Your task to perform on an android device: Open accessibility settings Image 0: 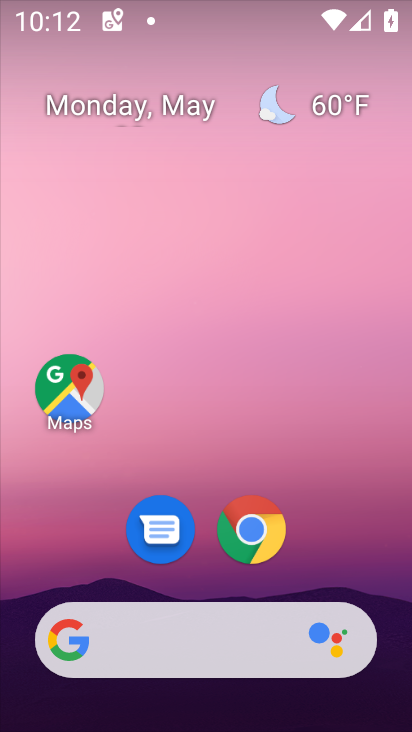
Step 0: drag from (251, 457) to (249, 133)
Your task to perform on an android device: Open accessibility settings Image 1: 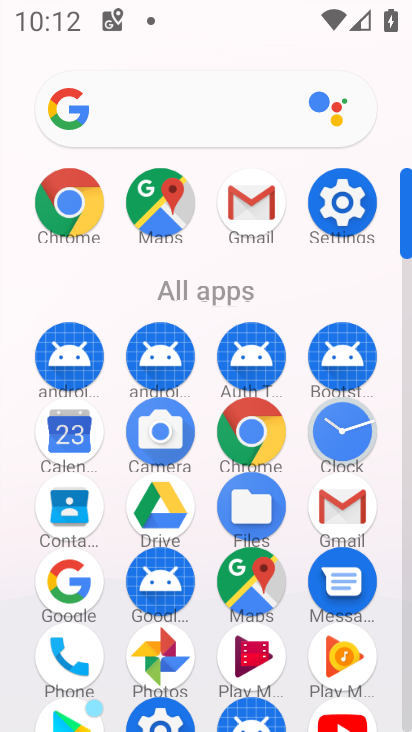
Step 1: click (330, 209)
Your task to perform on an android device: Open accessibility settings Image 2: 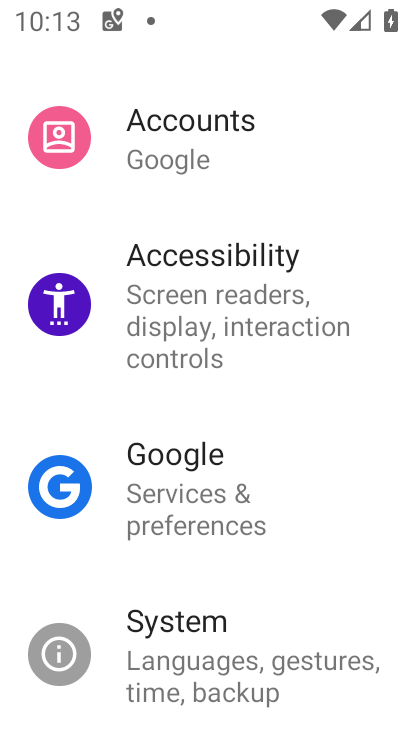
Step 2: drag from (241, 590) to (235, 446)
Your task to perform on an android device: Open accessibility settings Image 3: 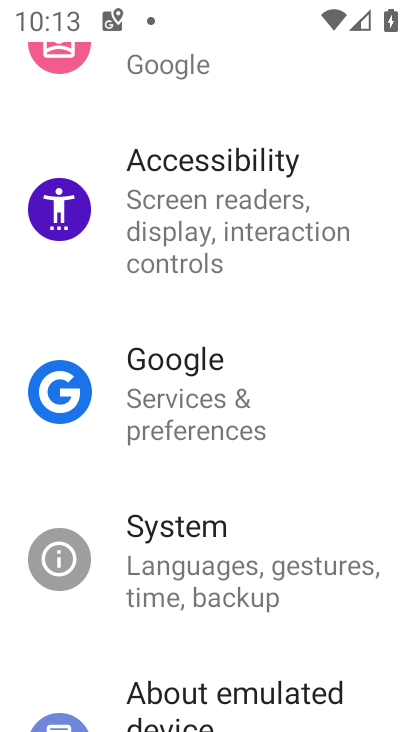
Step 3: click (185, 237)
Your task to perform on an android device: Open accessibility settings Image 4: 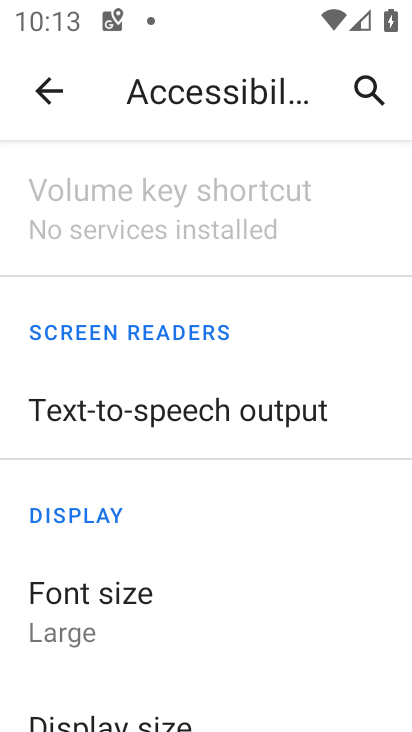
Step 4: task complete